Your task to perform on an android device: Open Amazon Image 0: 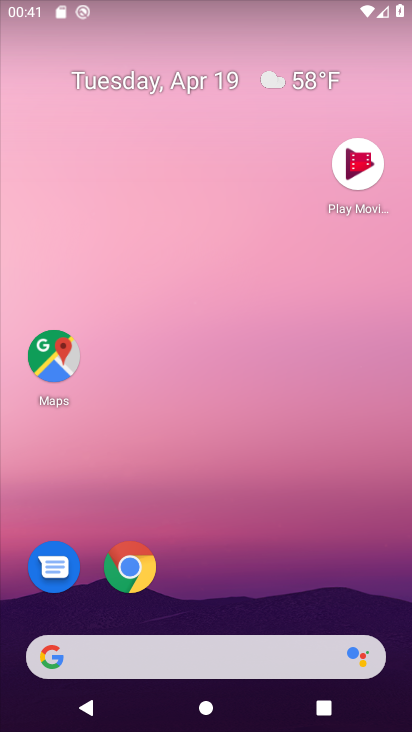
Step 0: drag from (214, 595) to (242, 58)
Your task to perform on an android device: Open Amazon Image 1: 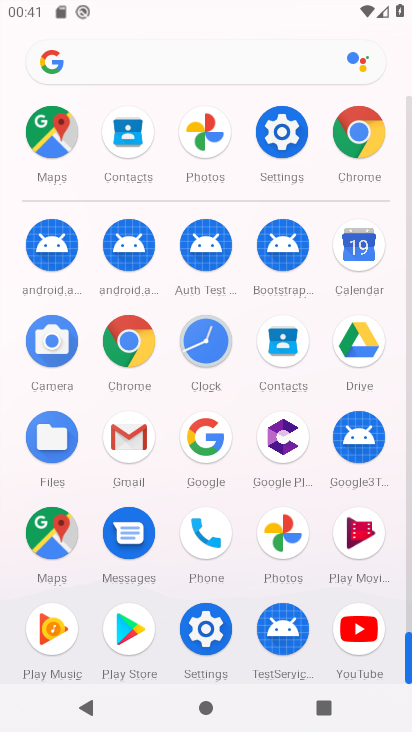
Step 1: click (124, 332)
Your task to perform on an android device: Open Amazon Image 2: 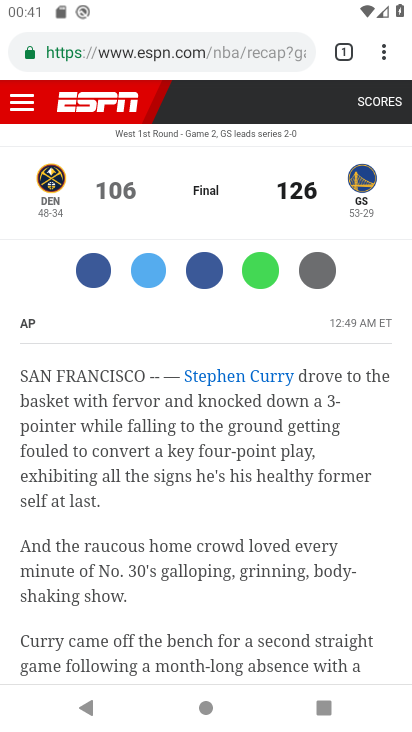
Step 2: drag from (220, 536) to (307, 144)
Your task to perform on an android device: Open Amazon Image 3: 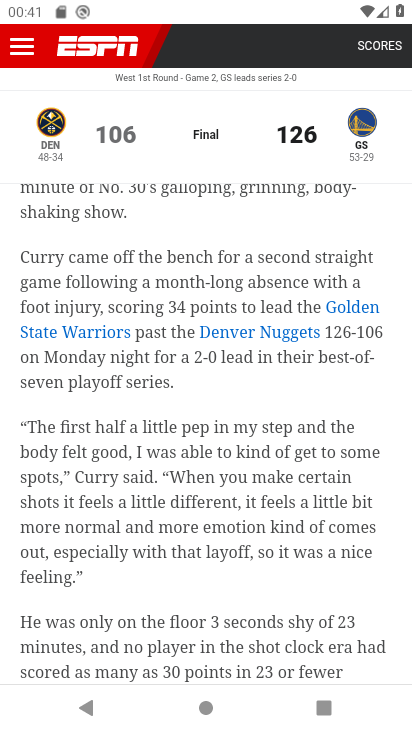
Step 3: drag from (307, 167) to (379, 675)
Your task to perform on an android device: Open Amazon Image 4: 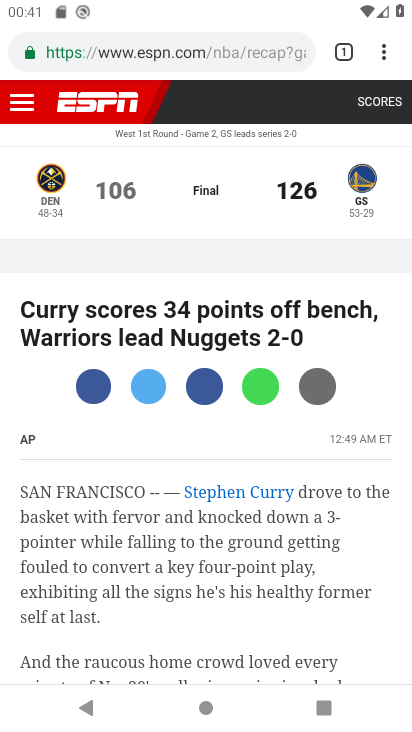
Step 4: click (353, 64)
Your task to perform on an android device: Open Amazon Image 5: 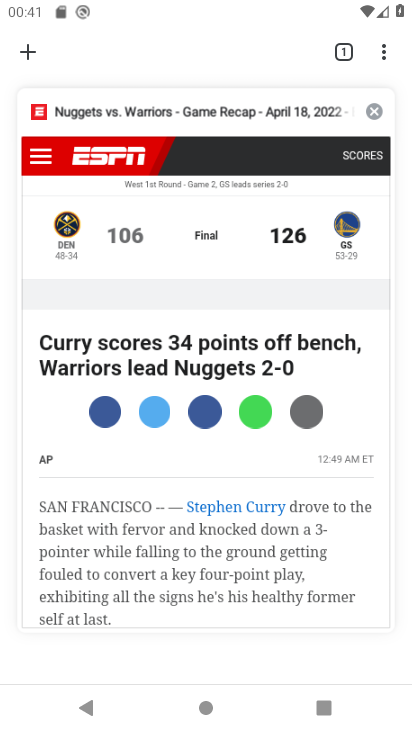
Step 5: click (32, 48)
Your task to perform on an android device: Open Amazon Image 6: 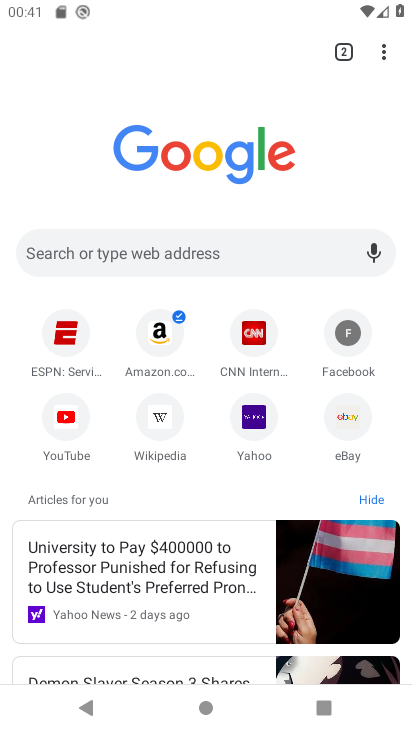
Step 6: click (163, 327)
Your task to perform on an android device: Open Amazon Image 7: 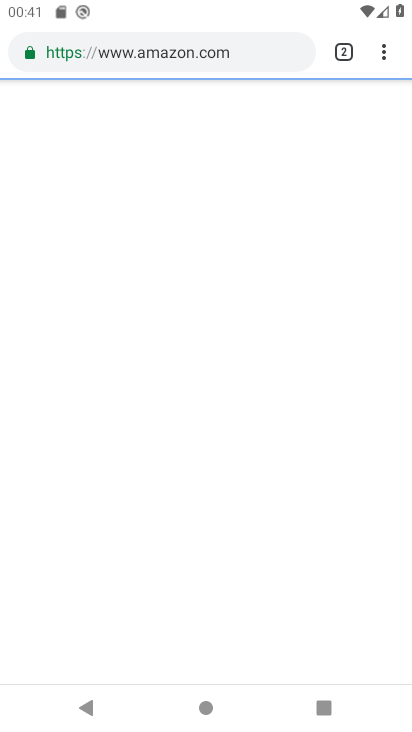
Step 7: task complete